Your task to perform on an android device: Is it going to rain tomorrow? Image 0: 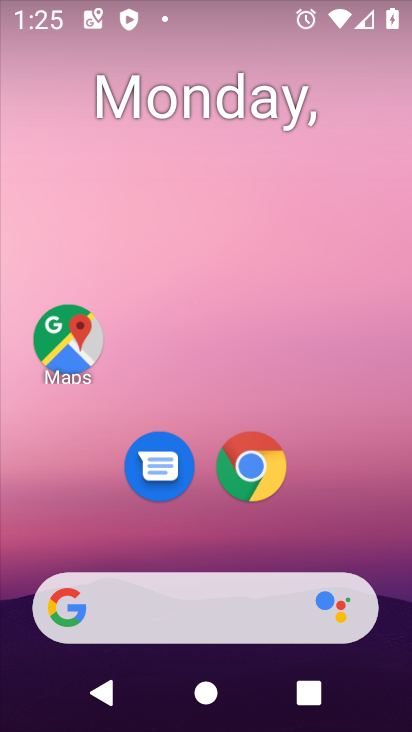
Step 0: drag from (396, 614) to (265, 60)
Your task to perform on an android device: Is it going to rain tomorrow? Image 1: 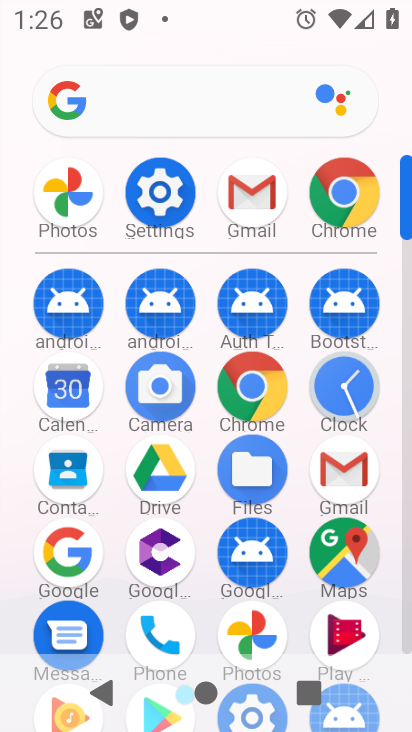
Step 1: click (63, 546)
Your task to perform on an android device: Is it going to rain tomorrow? Image 2: 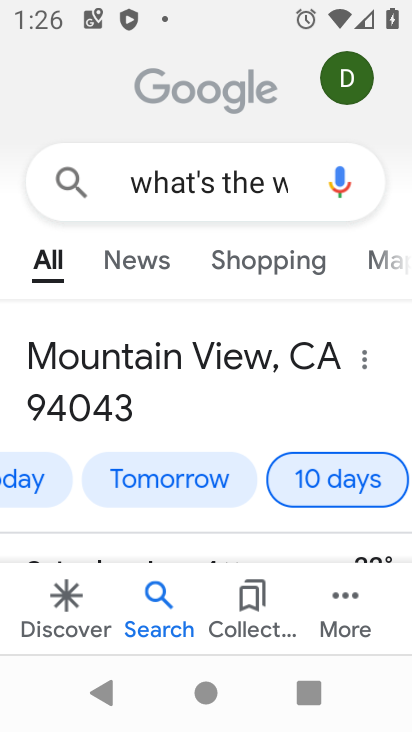
Step 2: press back button
Your task to perform on an android device: Is it going to rain tomorrow? Image 3: 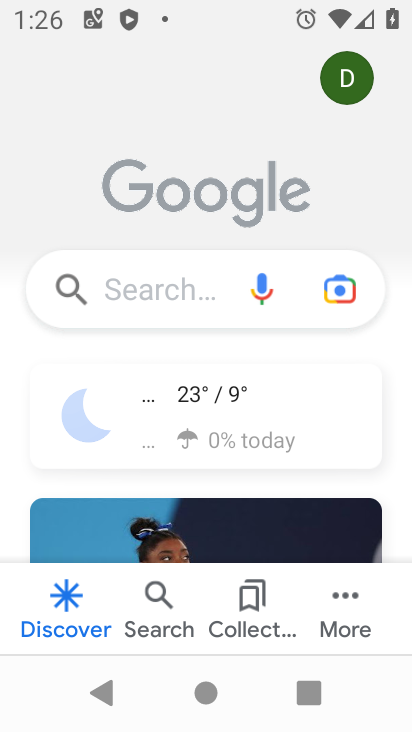
Step 3: click (156, 302)
Your task to perform on an android device: Is it going to rain tomorrow? Image 4: 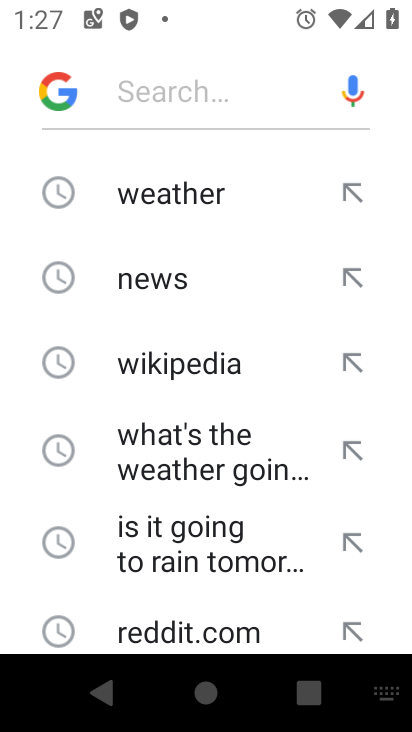
Step 4: click (152, 557)
Your task to perform on an android device: Is it going to rain tomorrow? Image 5: 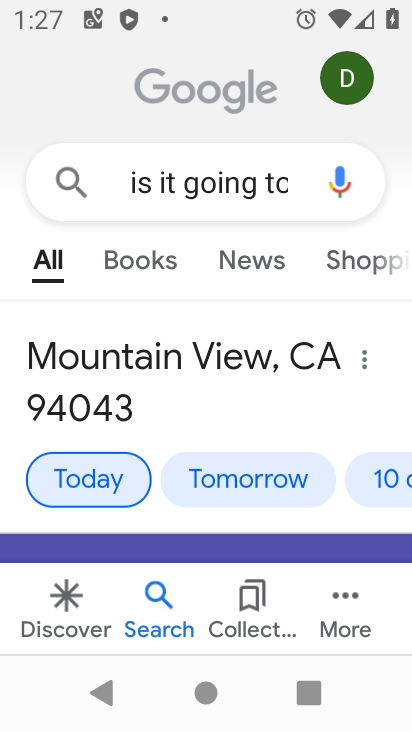
Step 5: task complete